Your task to perform on an android device: Show the shopping cart on ebay.com. Search for "lg ultragear" on ebay.com, select the first entry, and add it to the cart. Image 0: 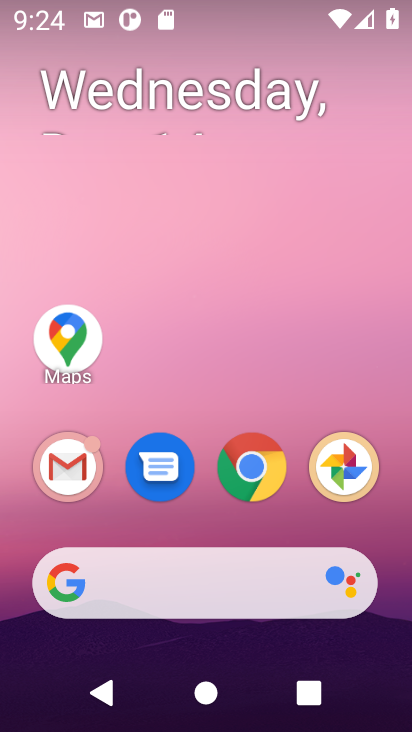
Step 0: click (242, 496)
Your task to perform on an android device: Show the shopping cart on ebay.com. Search for "lg ultragear" on ebay.com, select the first entry, and add it to the cart. Image 1: 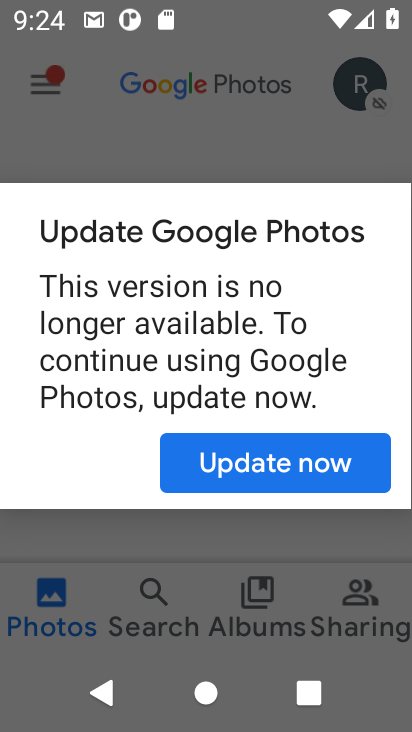
Step 1: press home button
Your task to perform on an android device: Show the shopping cart on ebay.com. Search for "lg ultragear" on ebay.com, select the first entry, and add it to the cart. Image 2: 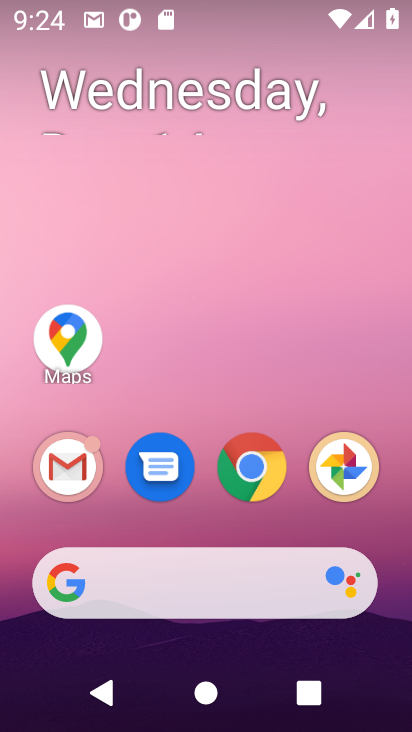
Step 2: click (262, 605)
Your task to perform on an android device: Show the shopping cart on ebay.com. Search for "lg ultragear" on ebay.com, select the first entry, and add it to the cart. Image 3: 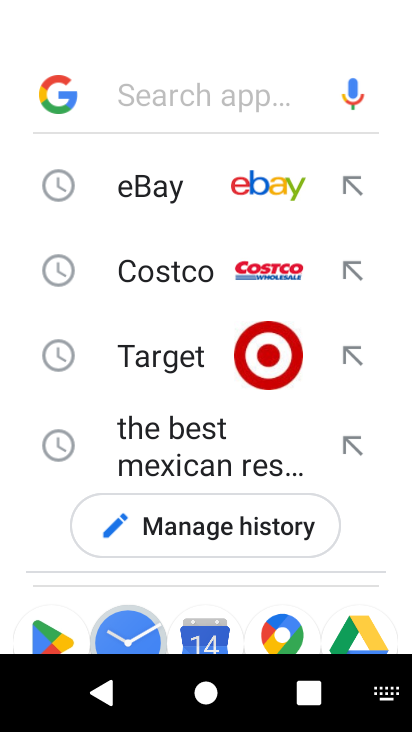
Step 3: click (210, 193)
Your task to perform on an android device: Show the shopping cart on ebay.com. Search for "lg ultragear" on ebay.com, select the first entry, and add it to the cart. Image 4: 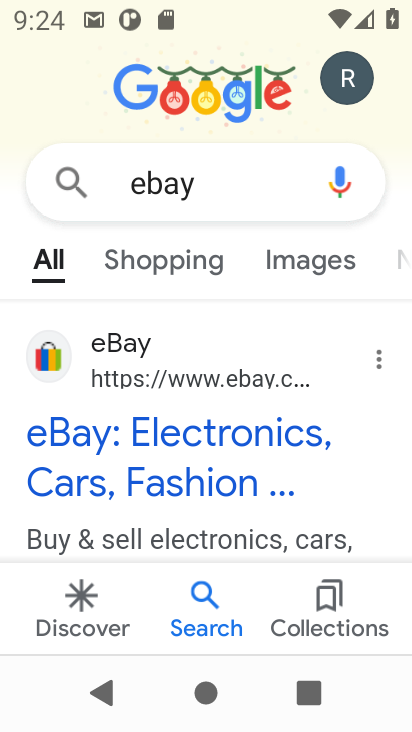
Step 4: click (307, 500)
Your task to perform on an android device: Show the shopping cart on ebay.com. Search for "lg ultragear" on ebay.com, select the first entry, and add it to the cart. Image 5: 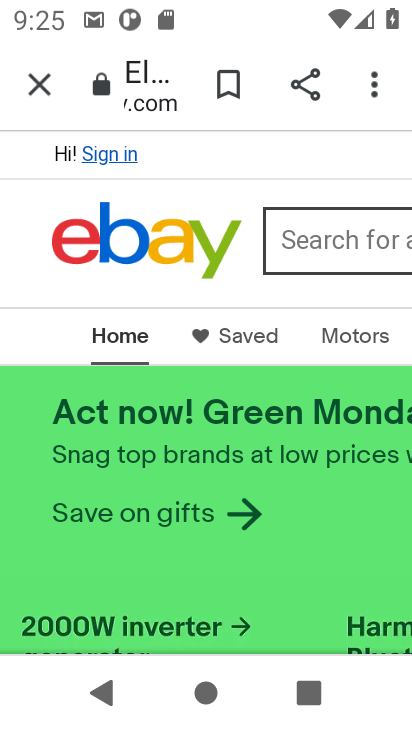
Step 5: click (307, 245)
Your task to perform on an android device: Show the shopping cart on ebay.com. Search for "lg ultragear" on ebay.com, select the first entry, and add it to the cart. Image 6: 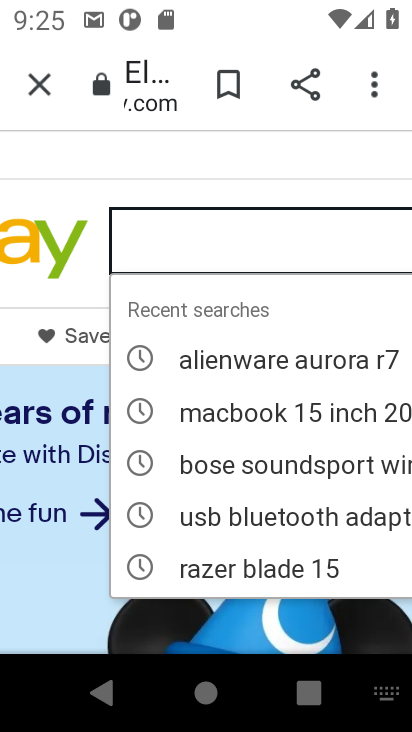
Step 6: type "lg utra ggear"
Your task to perform on an android device: Show the shopping cart on ebay.com. Search for "lg ultragear" on ebay.com, select the first entry, and add it to the cart. Image 7: 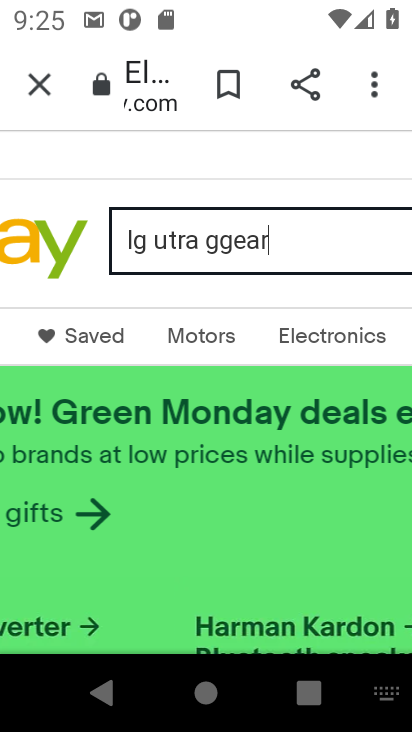
Step 7: task complete